Your task to perform on an android device: Toggle the flashlight Image 0: 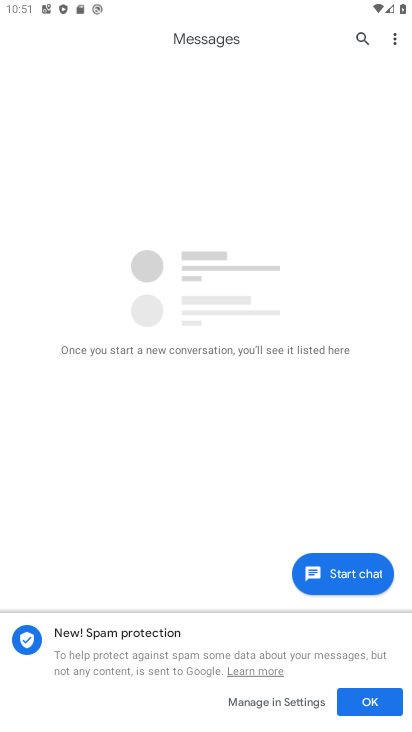
Step 0: press home button
Your task to perform on an android device: Toggle the flashlight Image 1: 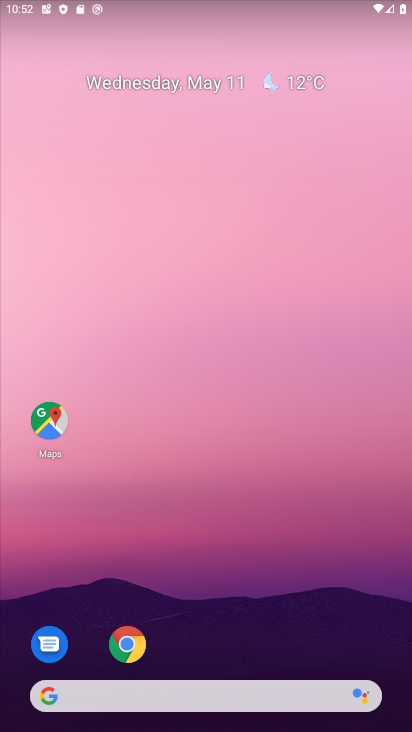
Step 1: drag from (249, 649) to (274, 96)
Your task to perform on an android device: Toggle the flashlight Image 2: 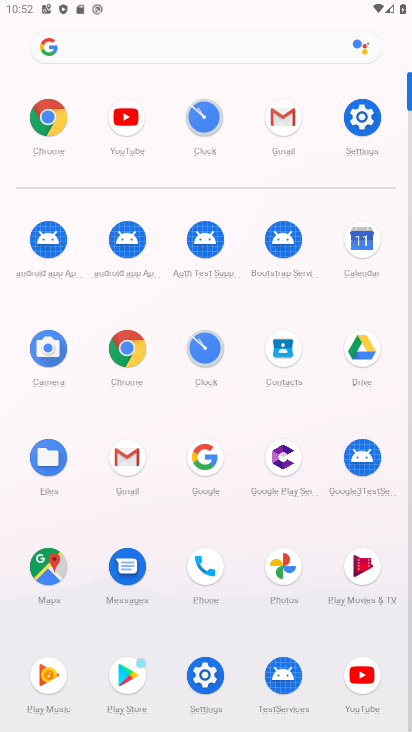
Step 2: click (362, 127)
Your task to perform on an android device: Toggle the flashlight Image 3: 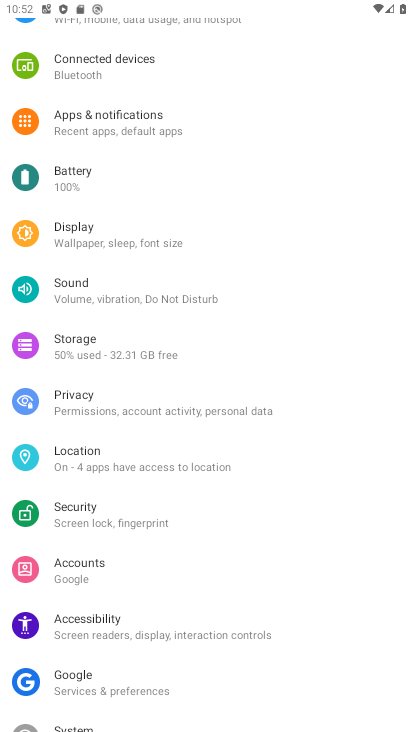
Step 3: click (207, 427)
Your task to perform on an android device: Toggle the flashlight Image 4: 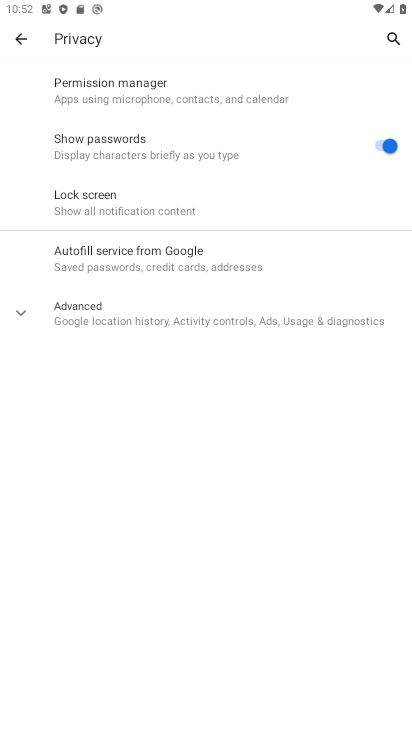
Step 4: task complete